Your task to perform on an android device: Open Google Chrome Image 0: 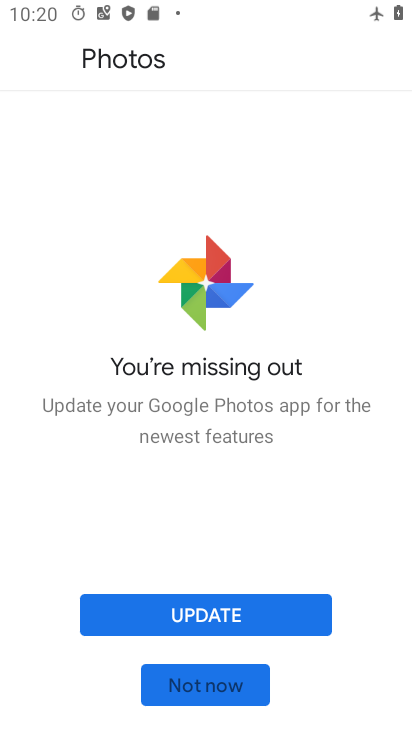
Step 0: press back button
Your task to perform on an android device: Open Google Chrome Image 1: 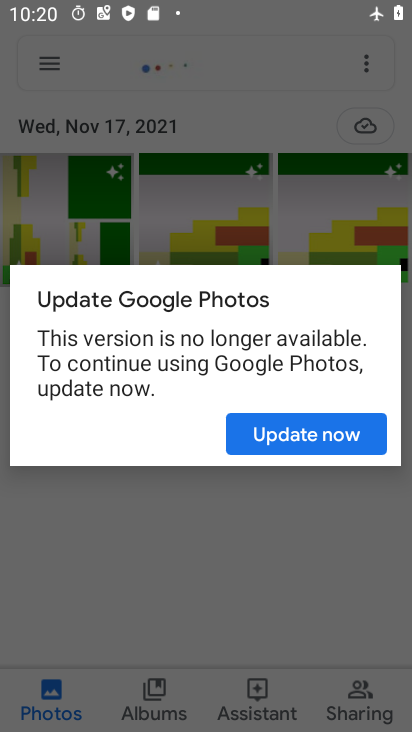
Step 1: press back button
Your task to perform on an android device: Open Google Chrome Image 2: 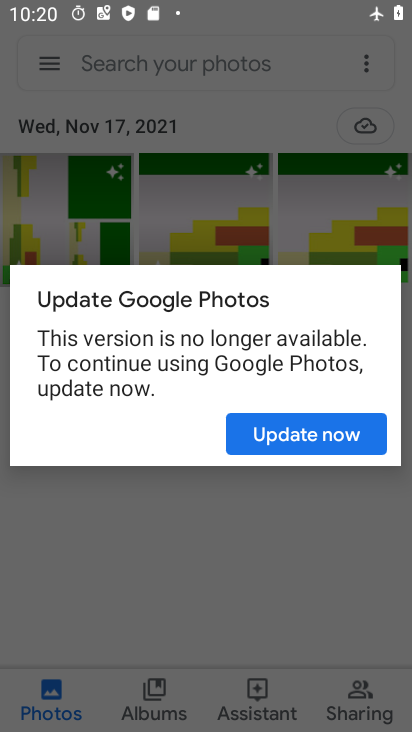
Step 2: press home button
Your task to perform on an android device: Open Google Chrome Image 3: 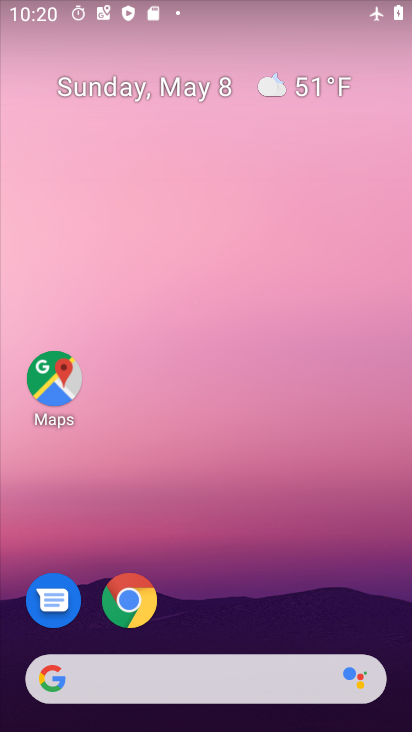
Step 3: drag from (266, 573) to (188, 14)
Your task to perform on an android device: Open Google Chrome Image 4: 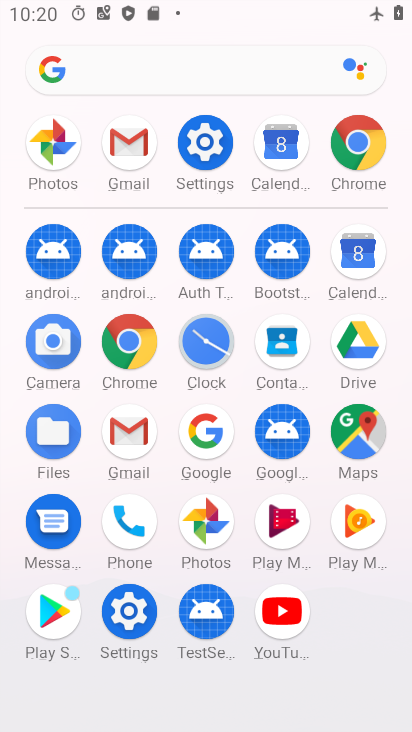
Step 4: click (357, 139)
Your task to perform on an android device: Open Google Chrome Image 5: 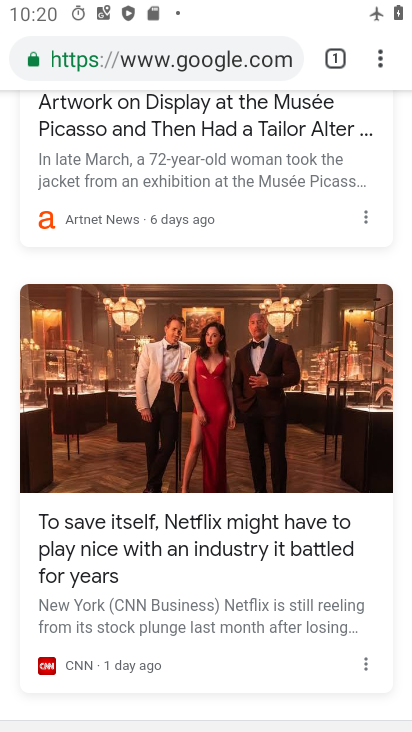
Step 5: task complete